Your task to perform on an android device: Go to network settings Image 0: 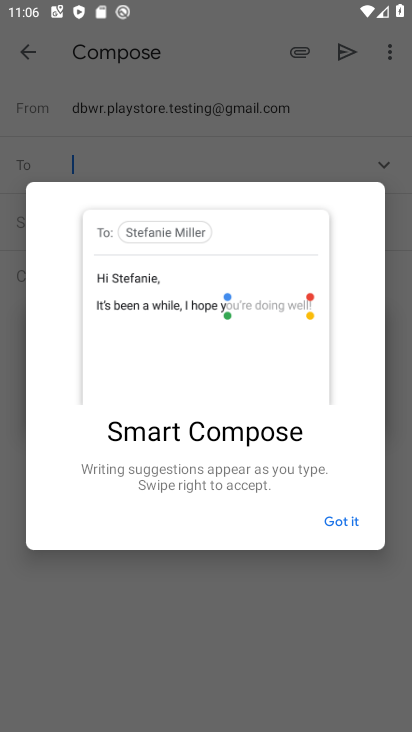
Step 0: press home button
Your task to perform on an android device: Go to network settings Image 1: 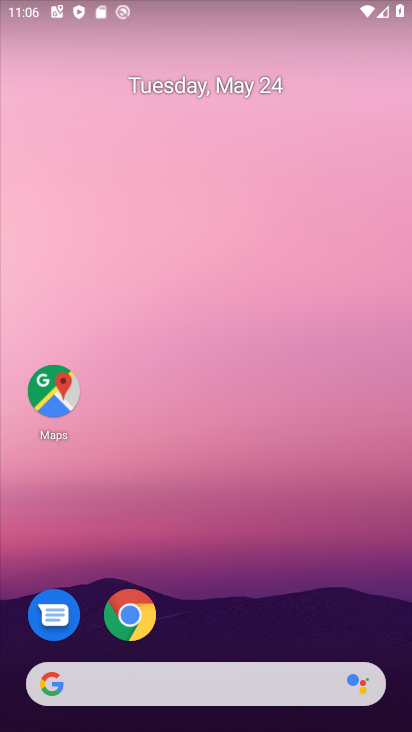
Step 1: drag from (254, 567) to (285, 48)
Your task to perform on an android device: Go to network settings Image 2: 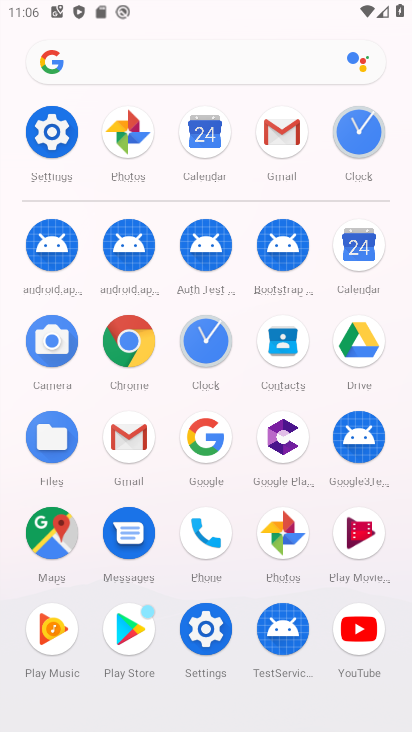
Step 2: click (58, 121)
Your task to perform on an android device: Go to network settings Image 3: 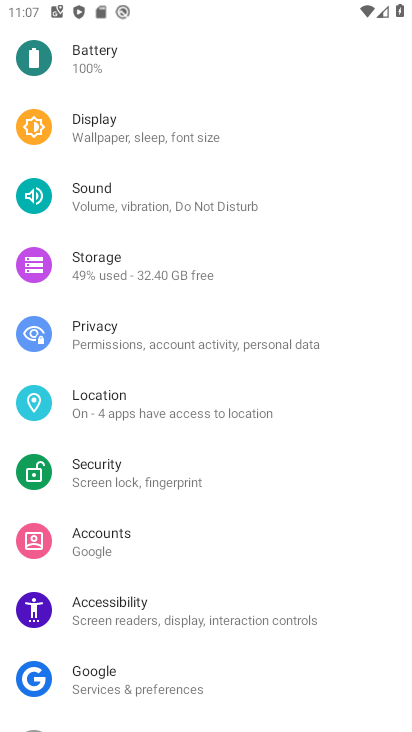
Step 3: drag from (200, 190) to (177, 731)
Your task to perform on an android device: Go to network settings Image 4: 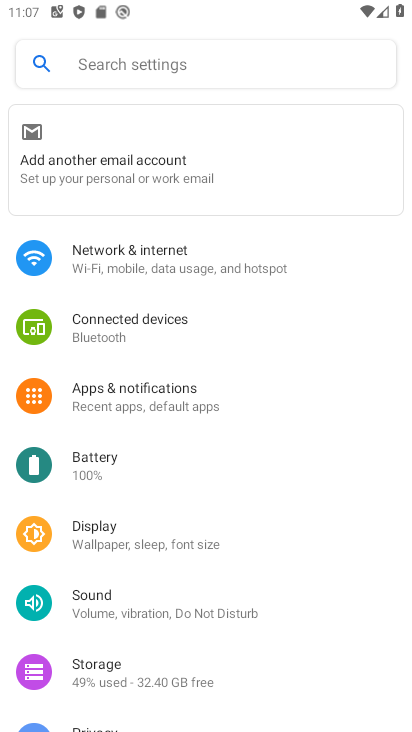
Step 4: click (149, 282)
Your task to perform on an android device: Go to network settings Image 5: 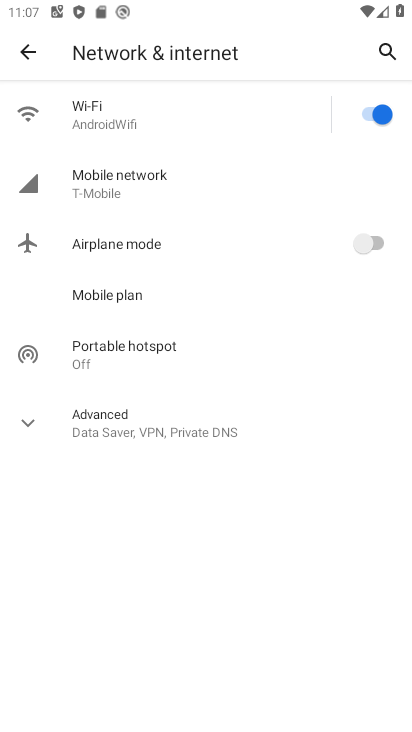
Step 5: task complete